Your task to perform on an android device: clear history in the chrome app Image 0: 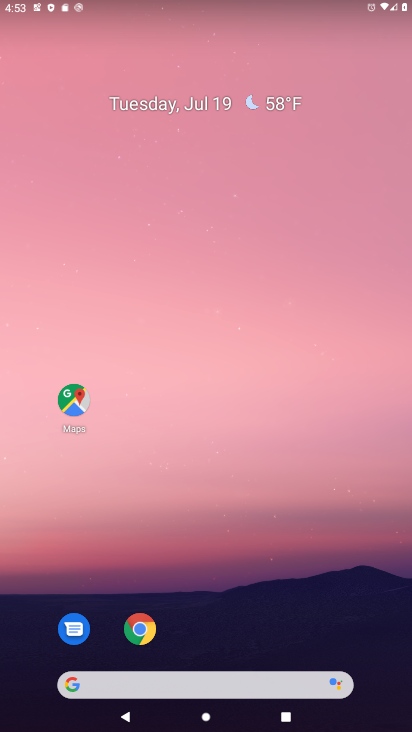
Step 0: click (237, 174)
Your task to perform on an android device: clear history in the chrome app Image 1: 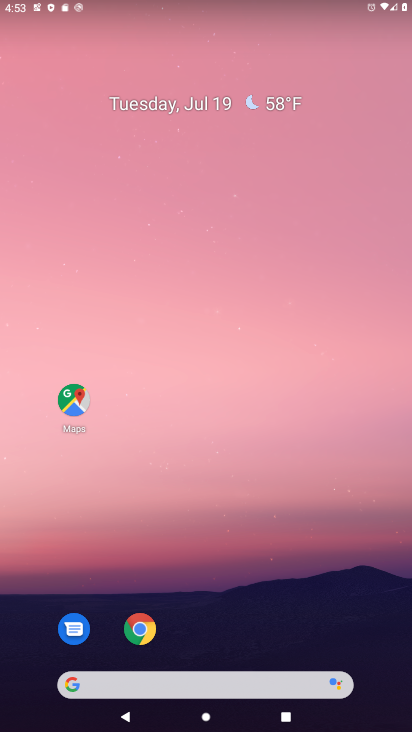
Step 1: drag from (233, 545) to (206, 101)
Your task to perform on an android device: clear history in the chrome app Image 2: 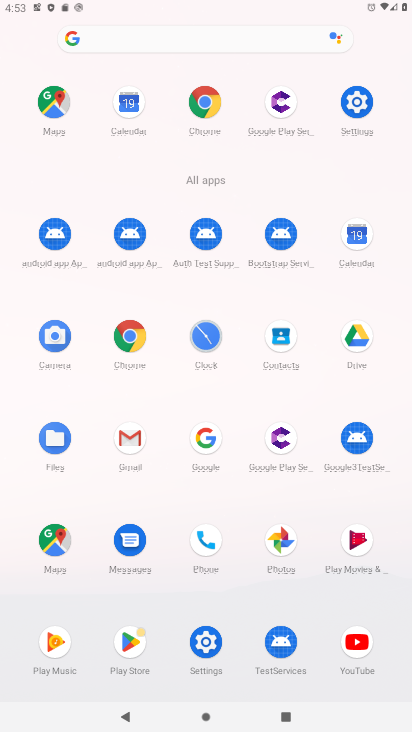
Step 2: click (203, 103)
Your task to perform on an android device: clear history in the chrome app Image 3: 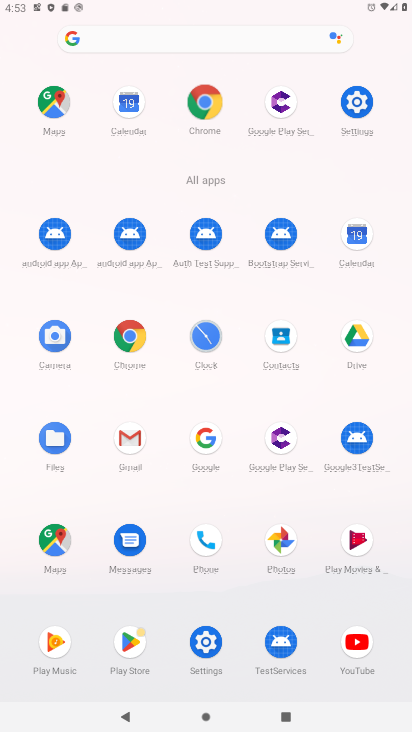
Step 3: click (203, 103)
Your task to perform on an android device: clear history in the chrome app Image 4: 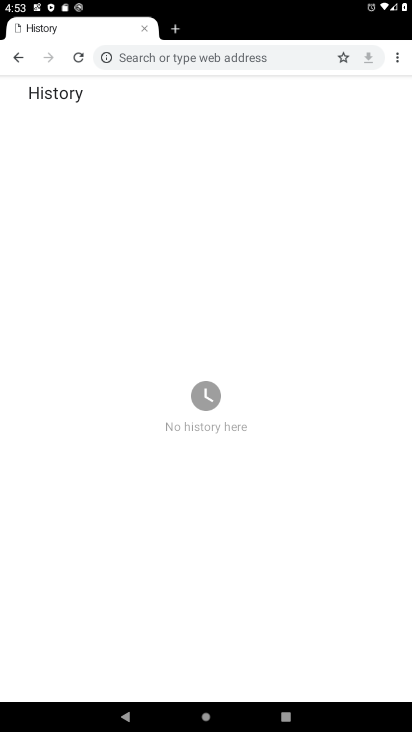
Step 4: task complete